Your task to perform on an android device: set the timer Image 0: 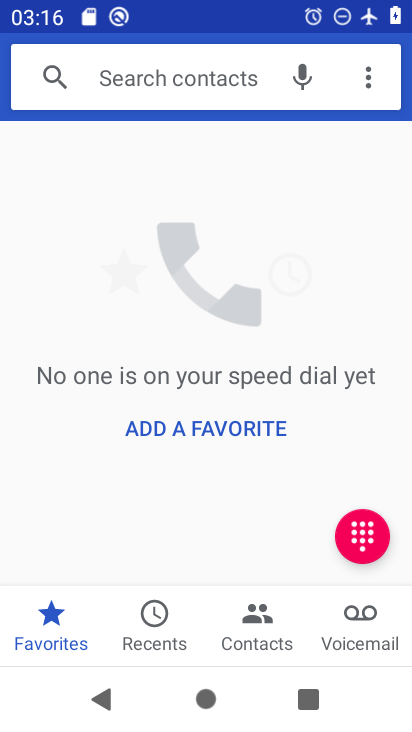
Step 0: press home button
Your task to perform on an android device: set the timer Image 1: 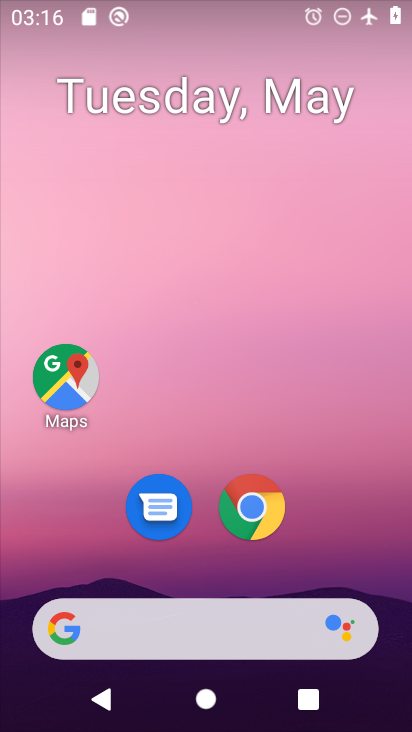
Step 1: drag from (195, 560) to (200, 268)
Your task to perform on an android device: set the timer Image 2: 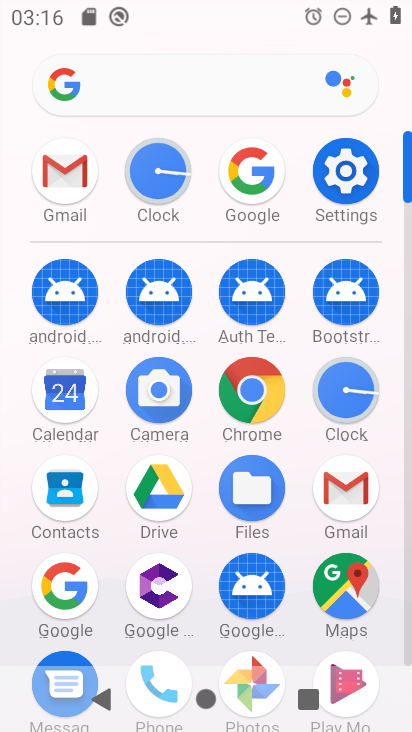
Step 2: click (336, 393)
Your task to perform on an android device: set the timer Image 3: 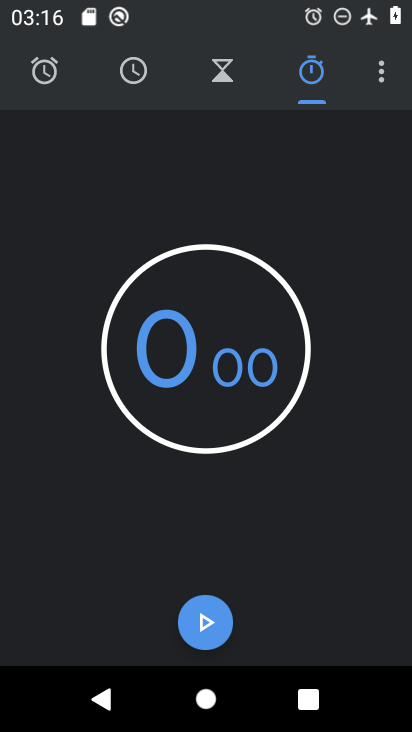
Step 3: click (231, 75)
Your task to perform on an android device: set the timer Image 4: 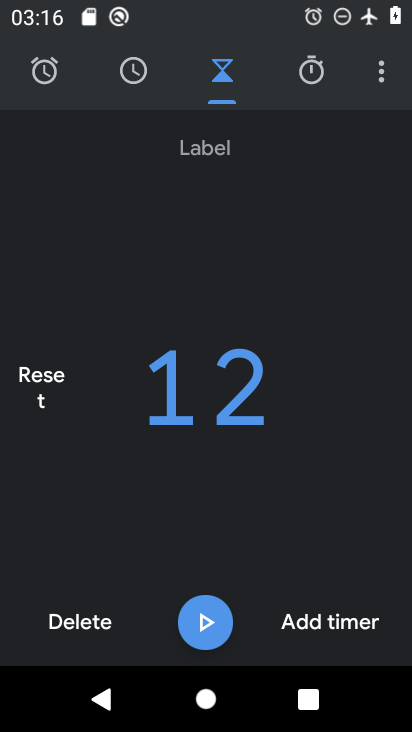
Step 4: click (203, 611)
Your task to perform on an android device: set the timer Image 5: 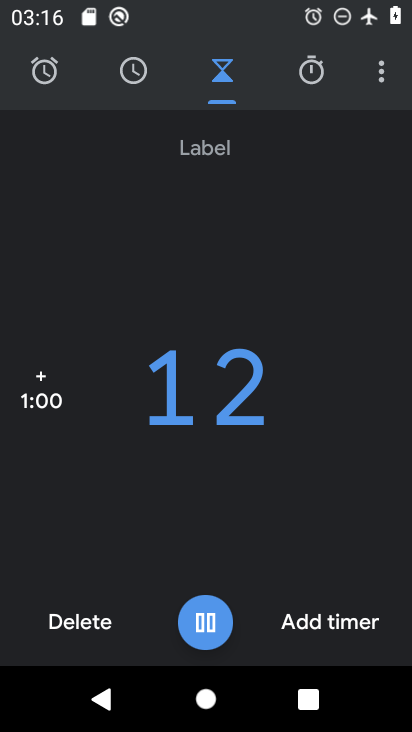
Step 5: task complete